Your task to perform on an android device: turn off improve location accuracy Image 0: 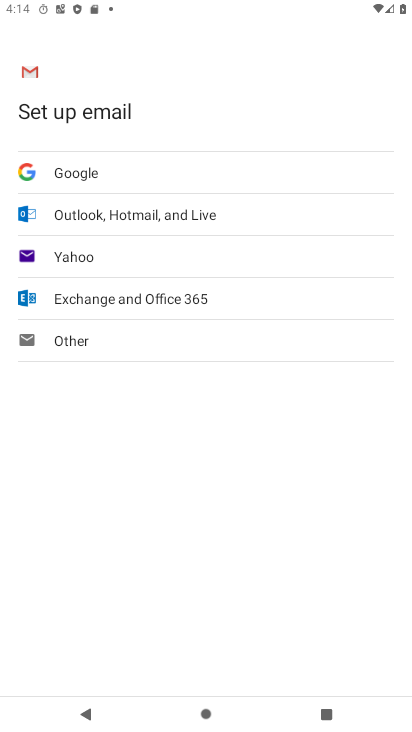
Step 0: press home button
Your task to perform on an android device: turn off improve location accuracy Image 1: 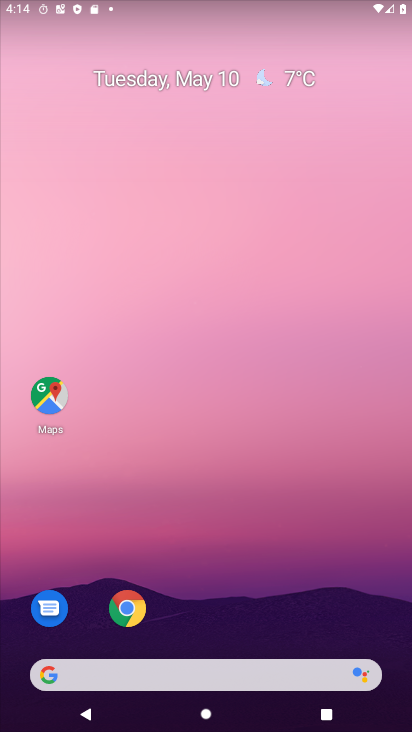
Step 1: drag from (344, 648) to (398, 25)
Your task to perform on an android device: turn off improve location accuracy Image 2: 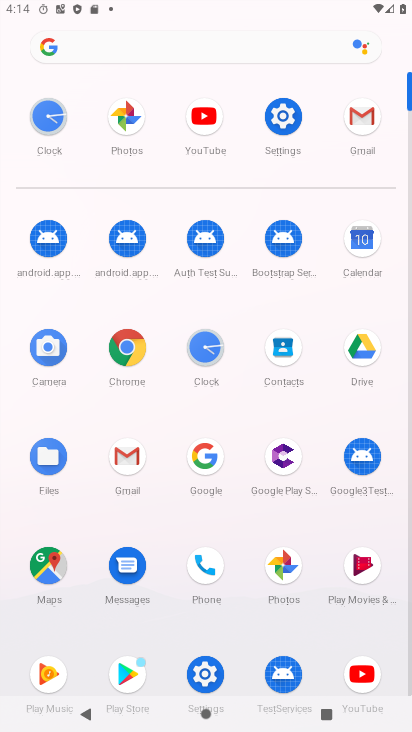
Step 2: click (288, 114)
Your task to perform on an android device: turn off improve location accuracy Image 3: 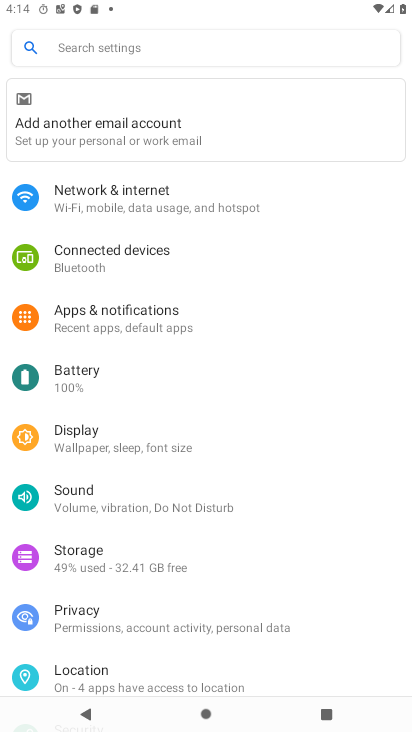
Step 3: click (85, 671)
Your task to perform on an android device: turn off improve location accuracy Image 4: 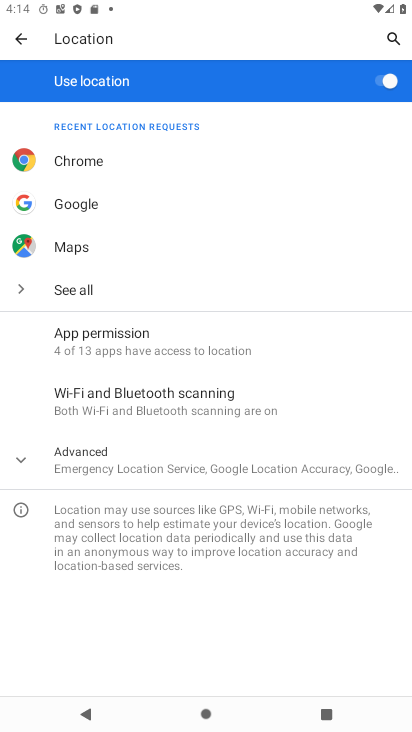
Step 4: click (17, 464)
Your task to perform on an android device: turn off improve location accuracy Image 5: 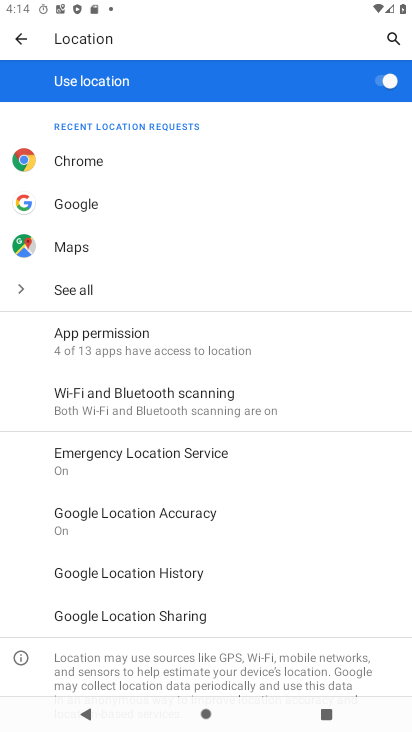
Step 5: click (90, 517)
Your task to perform on an android device: turn off improve location accuracy Image 6: 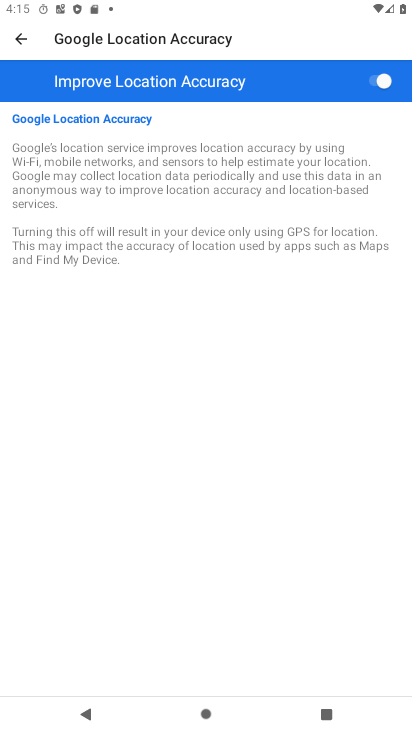
Step 6: click (380, 79)
Your task to perform on an android device: turn off improve location accuracy Image 7: 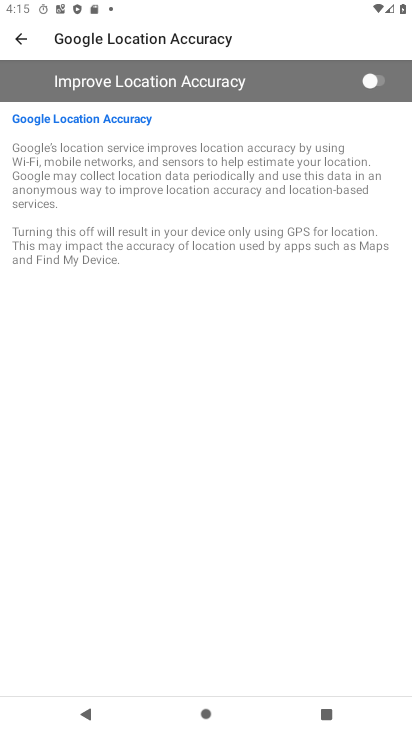
Step 7: task complete